Your task to perform on an android device: check battery use Image 0: 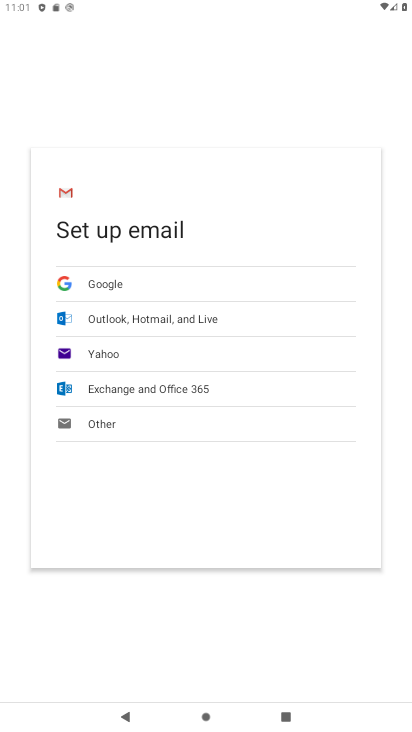
Step 0: press home button
Your task to perform on an android device: check battery use Image 1: 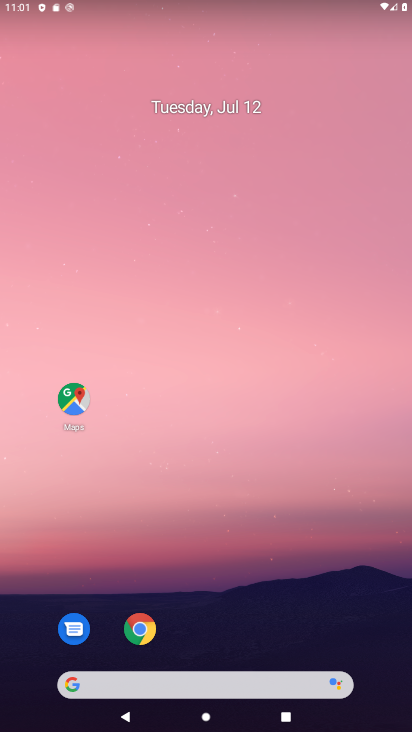
Step 1: drag from (234, 524) to (166, 183)
Your task to perform on an android device: check battery use Image 2: 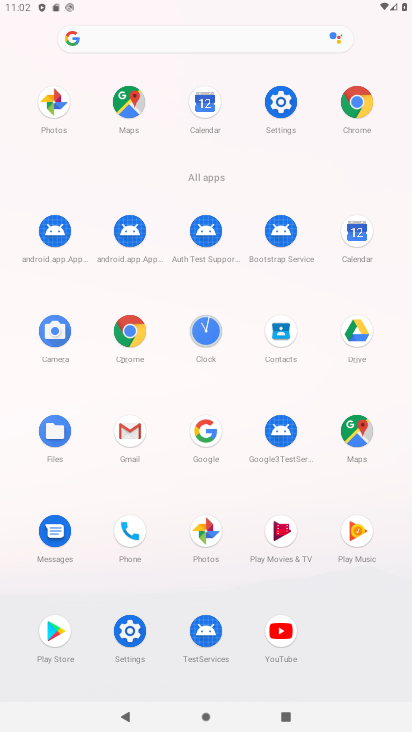
Step 2: click (285, 94)
Your task to perform on an android device: check battery use Image 3: 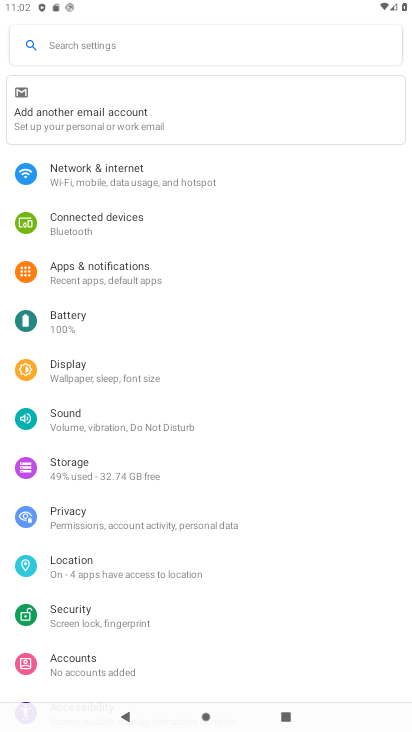
Step 3: click (57, 318)
Your task to perform on an android device: check battery use Image 4: 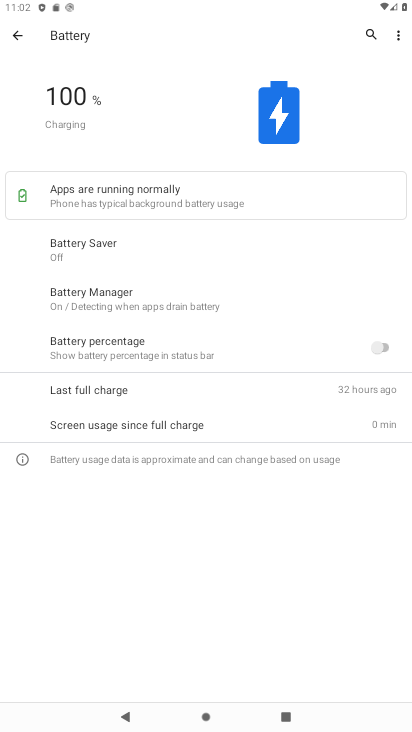
Step 4: task complete